Your task to perform on an android device: check data usage Image 0: 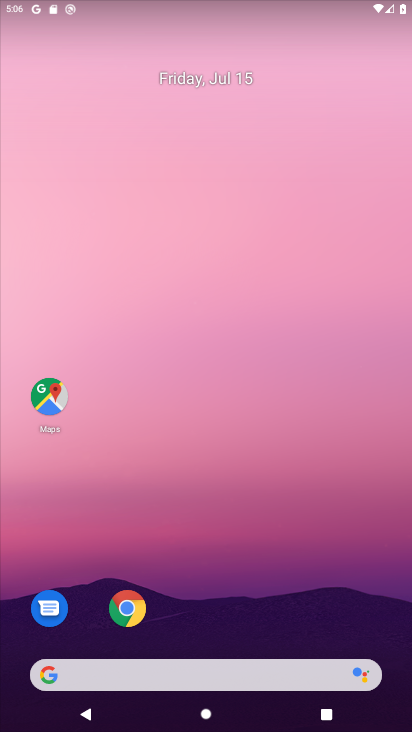
Step 0: drag from (231, 578) to (261, 11)
Your task to perform on an android device: check data usage Image 1: 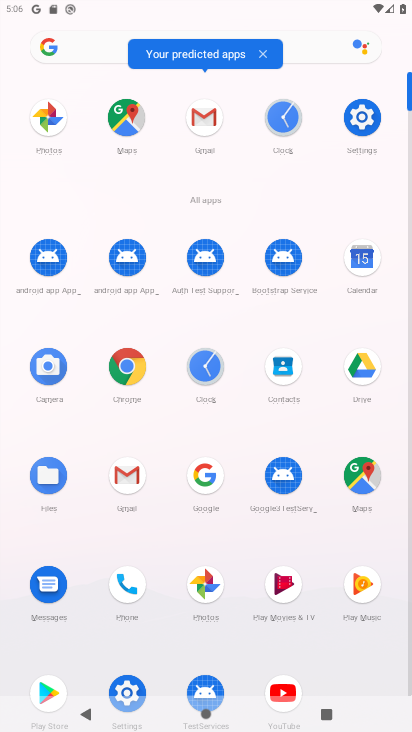
Step 1: click (374, 114)
Your task to perform on an android device: check data usage Image 2: 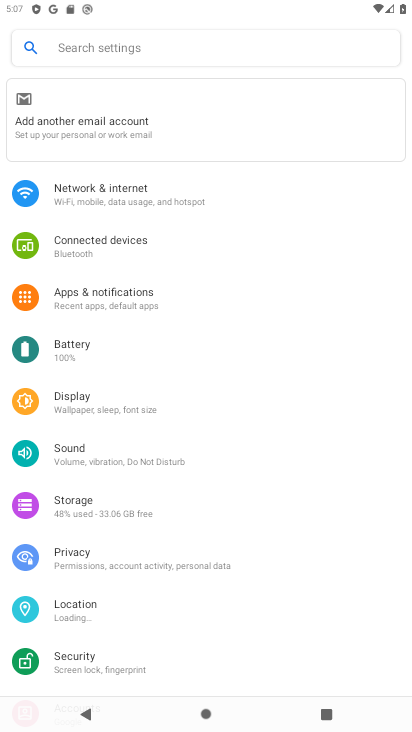
Step 2: click (112, 190)
Your task to perform on an android device: check data usage Image 3: 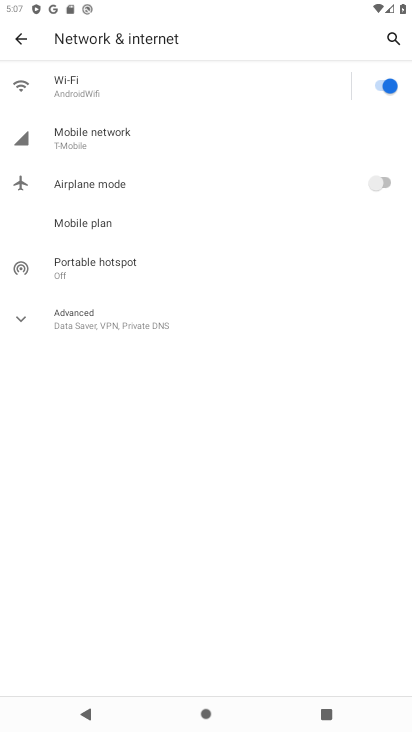
Step 3: click (83, 138)
Your task to perform on an android device: check data usage Image 4: 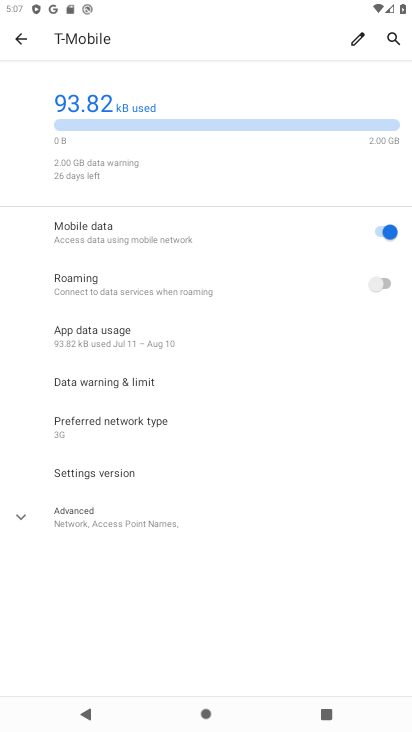
Step 4: task complete